Your task to perform on an android device: change the clock style Image 0: 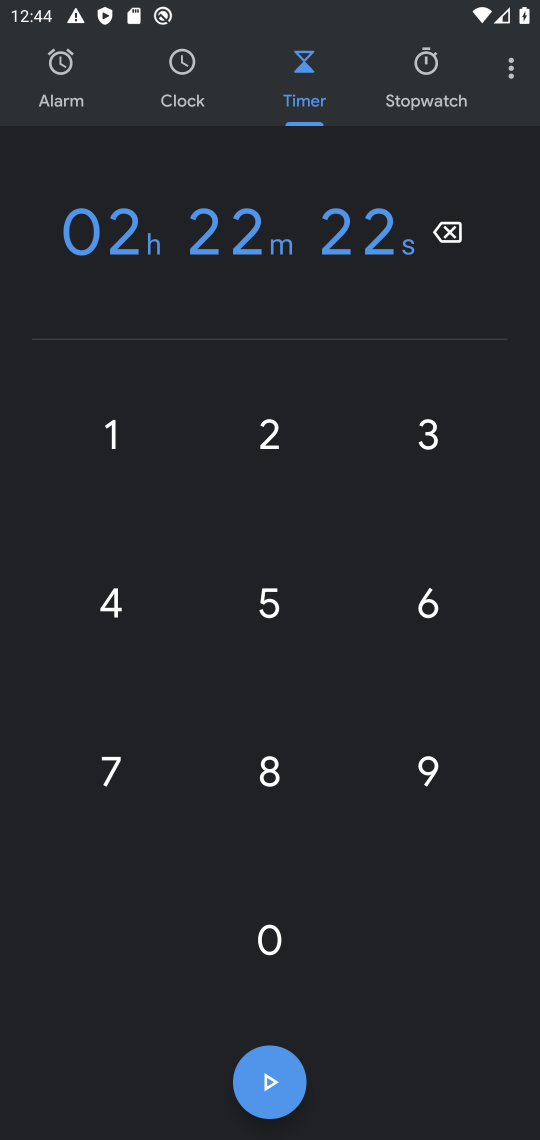
Step 0: press home button
Your task to perform on an android device: change the clock style Image 1: 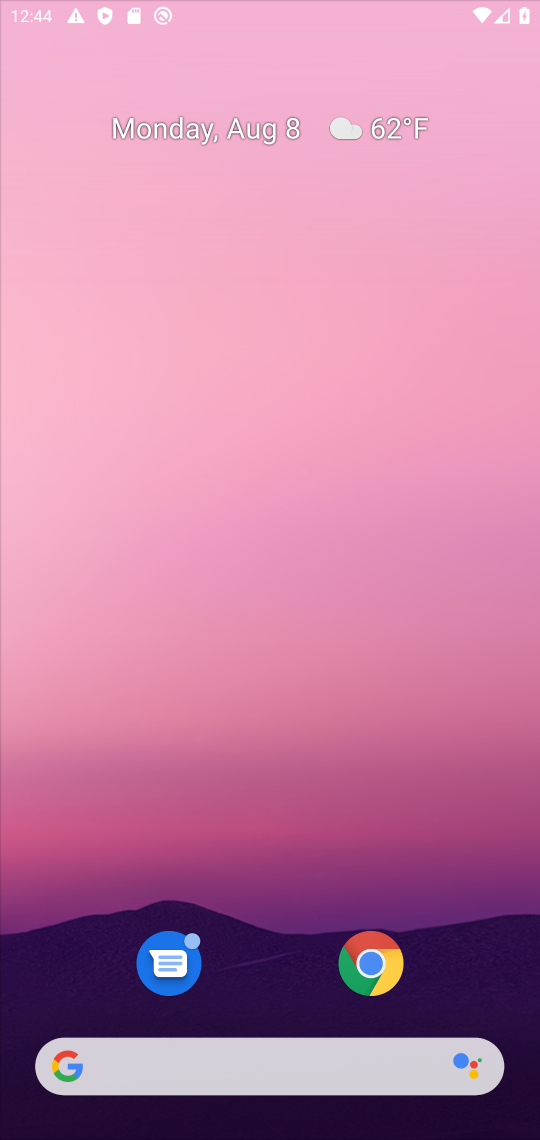
Step 1: drag from (447, 846) to (252, 90)
Your task to perform on an android device: change the clock style Image 2: 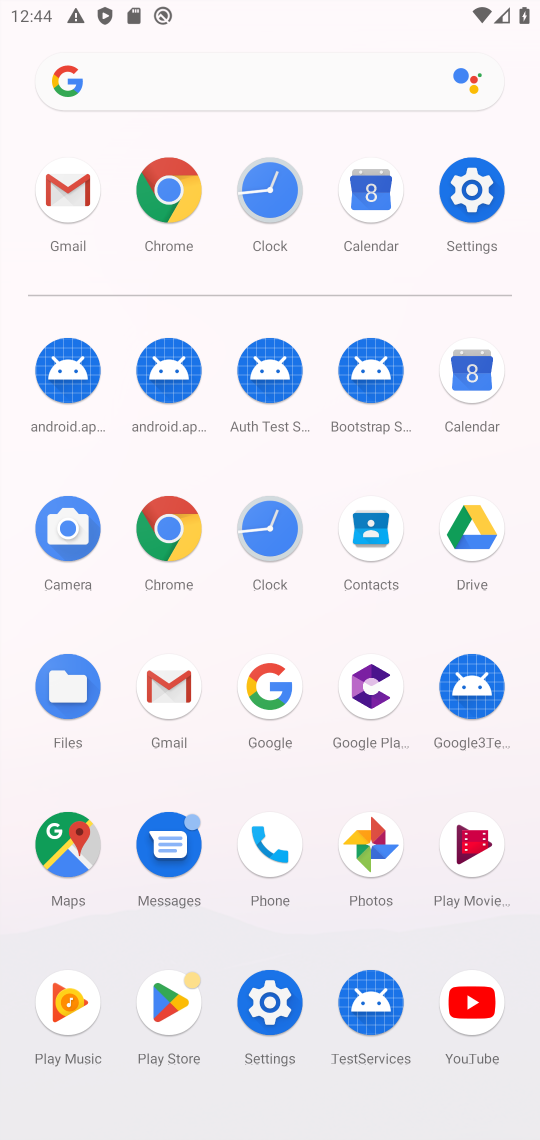
Step 2: click (262, 531)
Your task to perform on an android device: change the clock style Image 3: 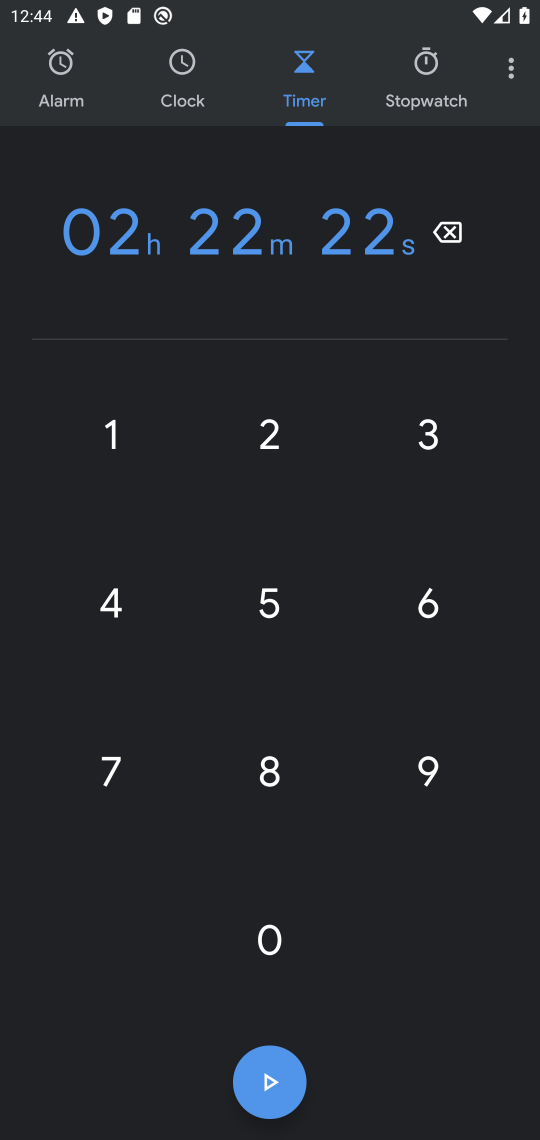
Step 3: click (517, 77)
Your task to perform on an android device: change the clock style Image 4: 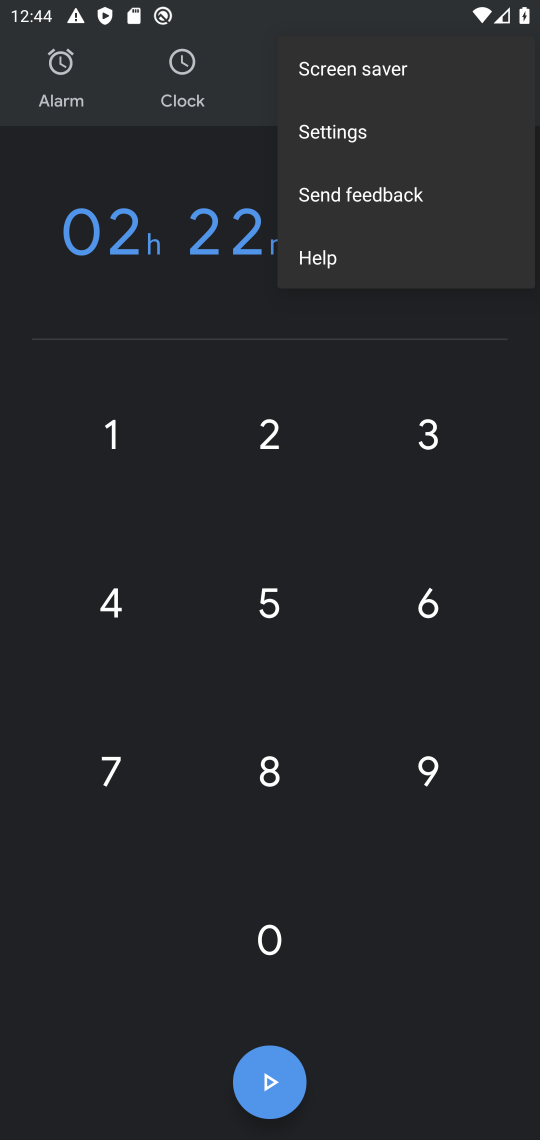
Step 4: click (385, 129)
Your task to perform on an android device: change the clock style Image 5: 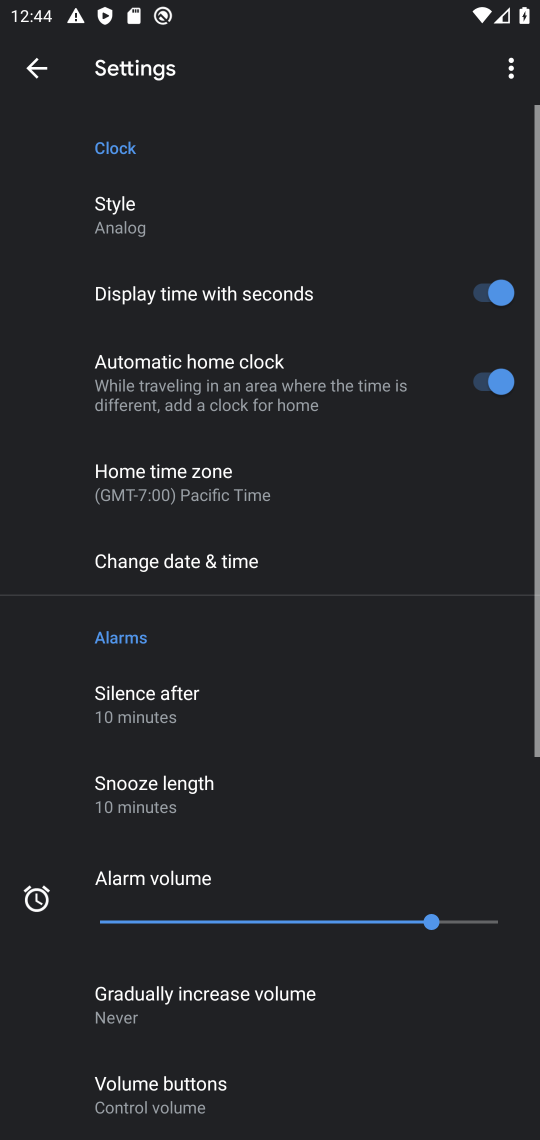
Step 5: click (154, 216)
Your task to perform on an android device: change the clock style Image 6: 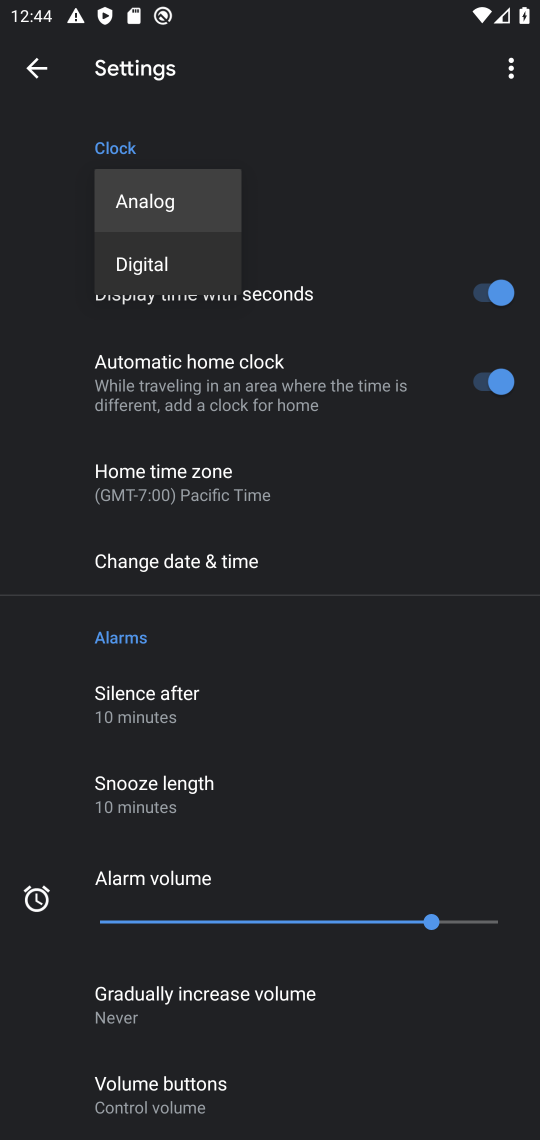
Step 6: click (186, 272)
Your task to perform on an android device: change the clock style Image 7: 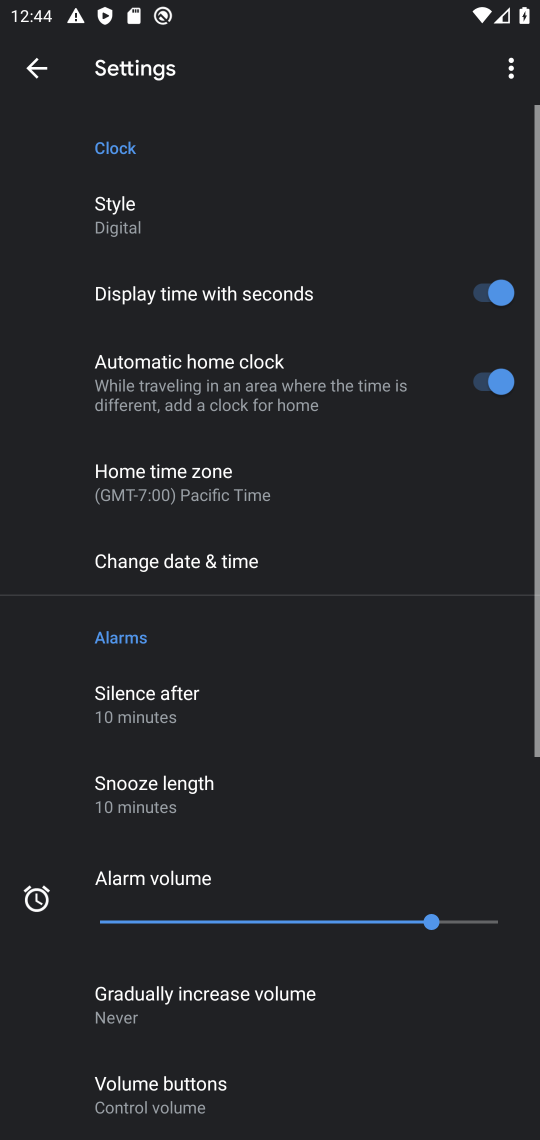
Step 7: task complete